Your task to perform on an android device: Toggle the flashlight Image 0: 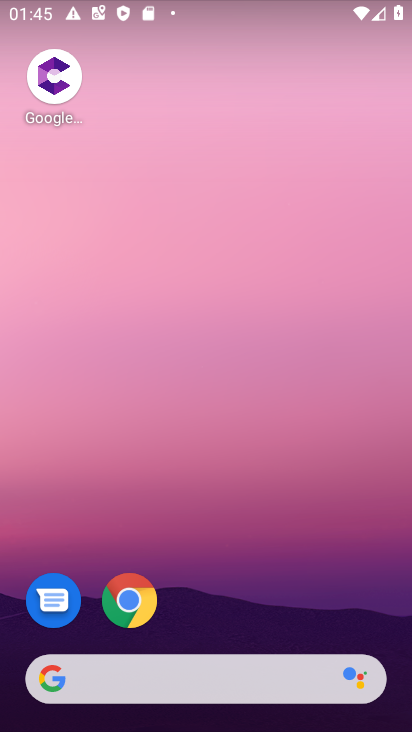
Step 0: press home button
Your task to perform on an android device: Toggle the flashlight Image 1: 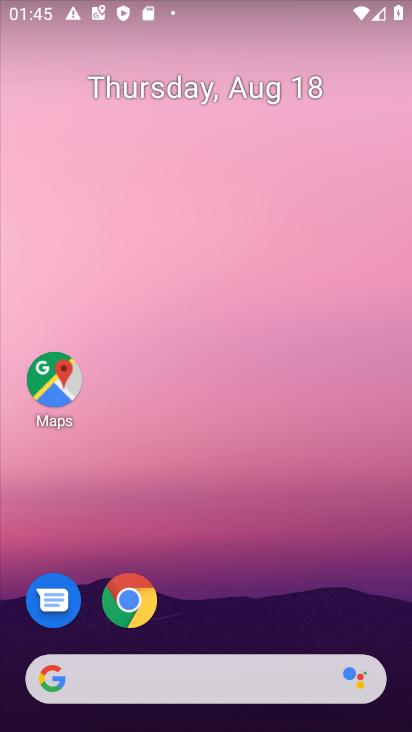
Step 1: task complete